Your task to perform on an android device: set the stopwatch Image 0: 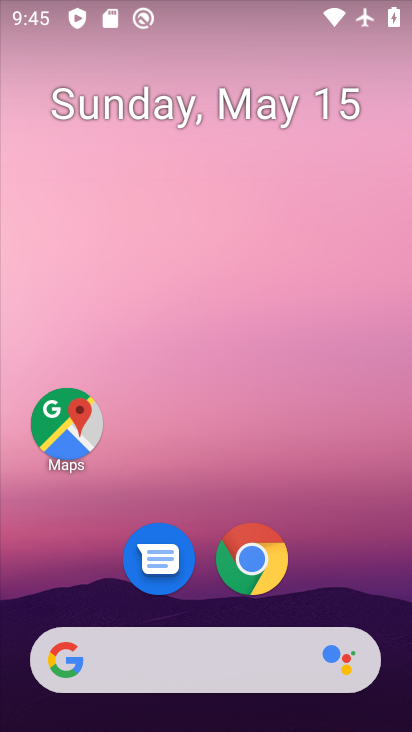
Step 0: drag from (276, 606) to (247, 88)
Your task to perform on an android device: set the stopwatch Image 1: 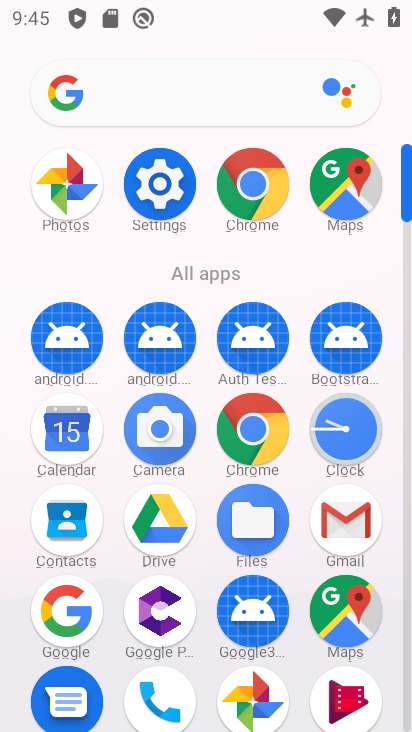
Step 1: click (360, 413)
Your task to perform on an android device: set the stopwatch Image 2: 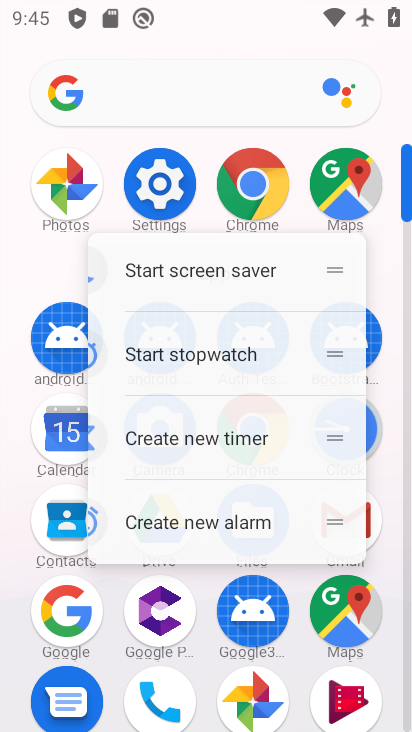
Step 2: click (357, 416)
Your task to perform on an android device: set the stopwatch Image 3: 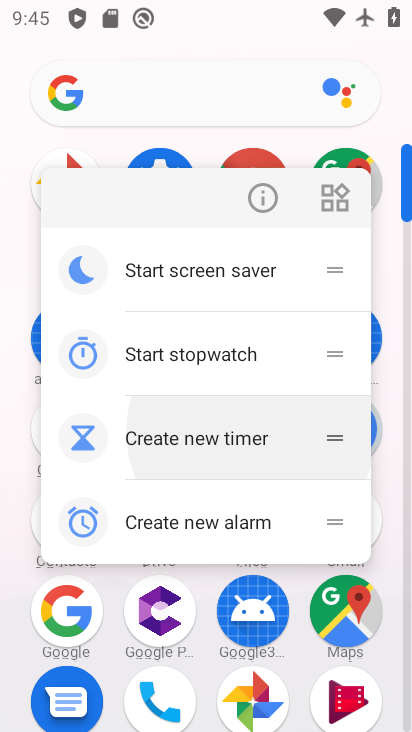
Step 3: click (356, 418)
Your task to perform on an android device: set the stopwatch Image 4: 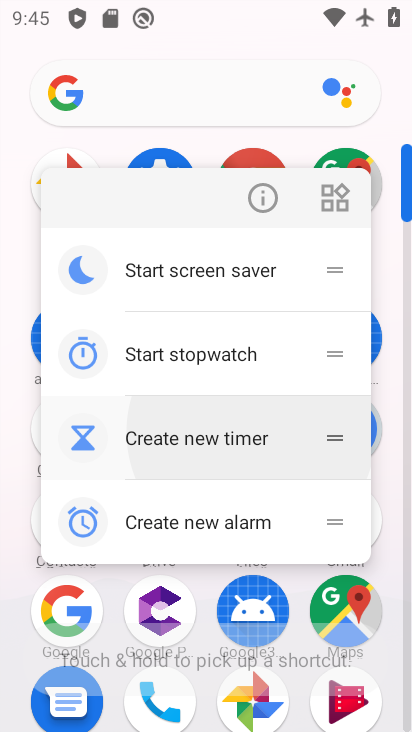
Step 4: click (356, 417)
Your task to perform on an android device: set the stopwatch Image 5: 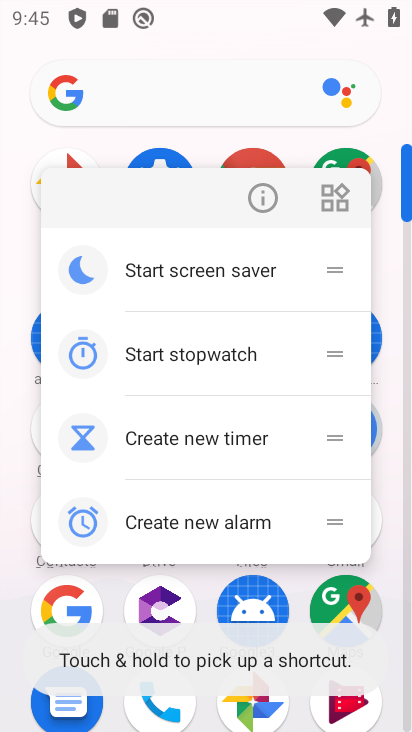
Step 5: click (393, 386)
Your task to perform on an android device: set the stopwatch Image 6: 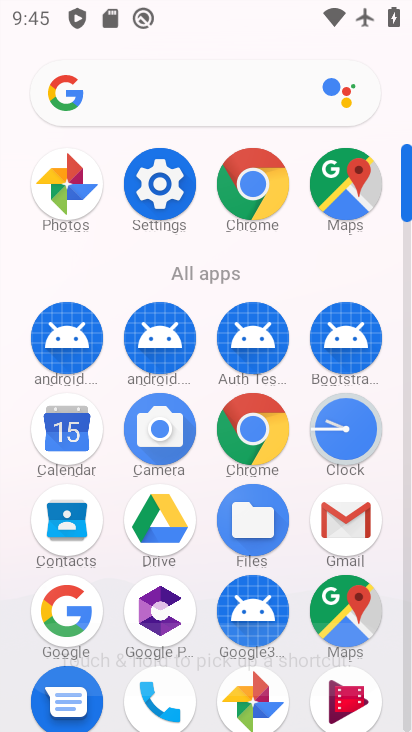
Step 6: click (393, 386)
Your task to perform on an android device: set the stopwatch Image 7: 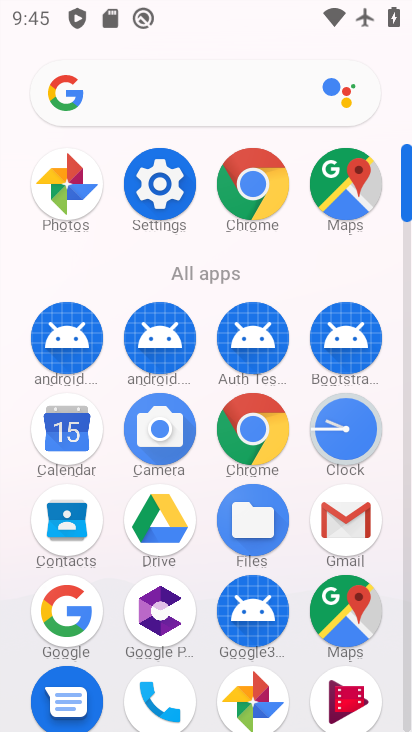
Step 7: click (361, 414)
Your task to perform on an android device: set the stopwatch Image 8: 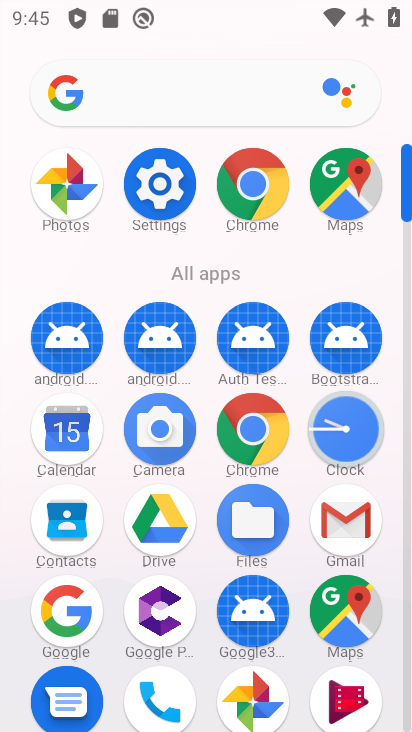
Step 8: click (360, 418)
Your task to perform on an android device: set the stopwatch Image 9: 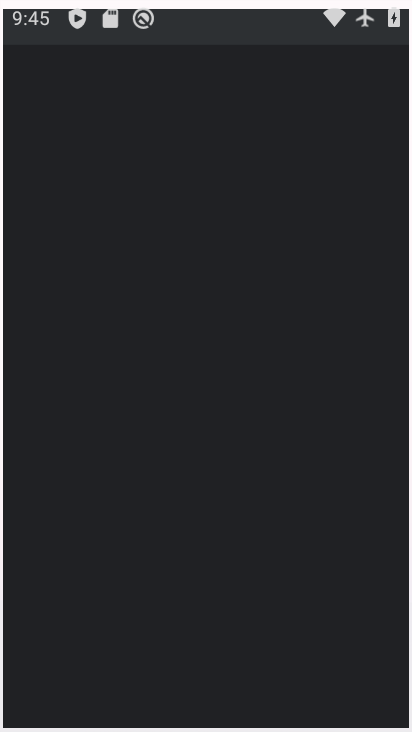
Step 9: click (348, 442)
Your task to perform on an android device: set the stopwatch Image 10: 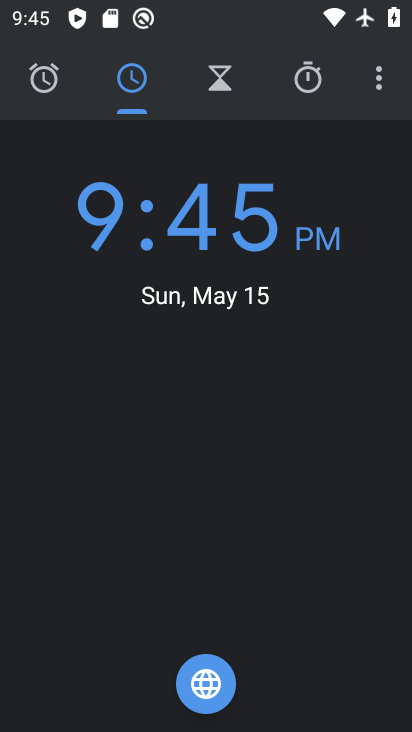
Step 10: click (299, 83)
Your task to perform on an android device: set the stopwatch Image 11: 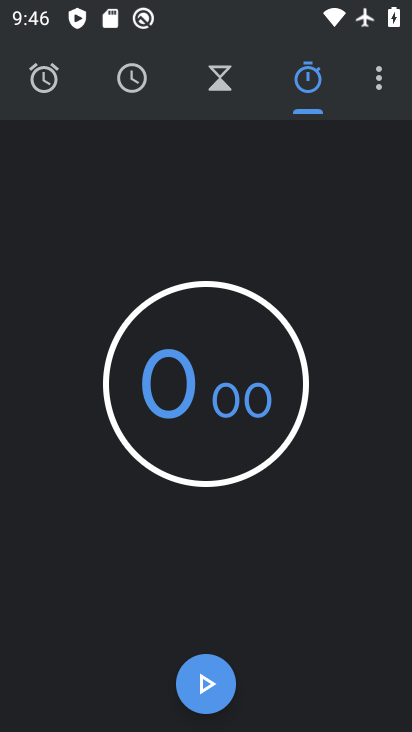
Step 11: click (206, 675)
Your task to perform on an android device: set the stopwatch Image 12: 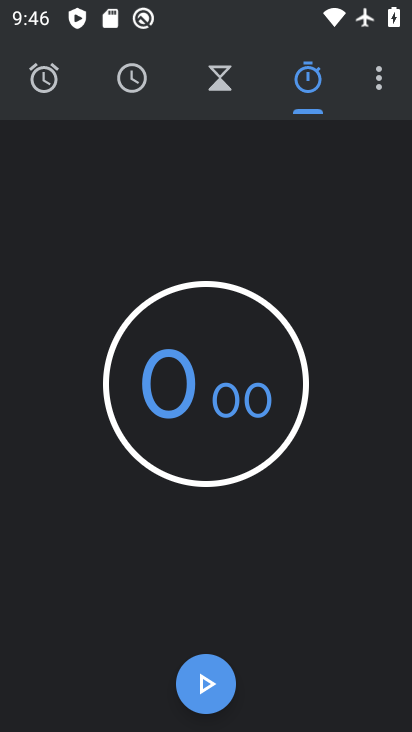
Step 12: click (206, 675)
Your task to perform on an android device: set the stopwatch Image 13: 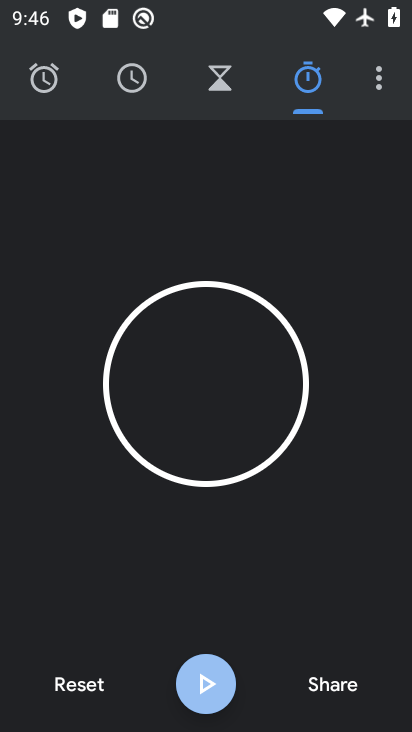
Step 13: click (206, 675)
Your task to perform on an android device: set the stopwatch Image 14: 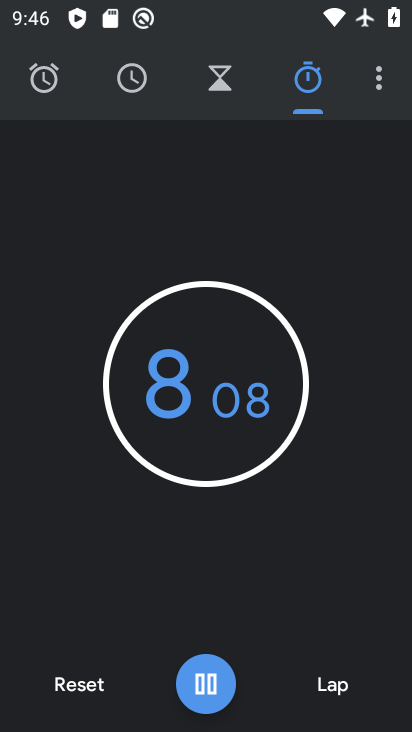
Step 14: click (204, 674)
Your task to perform on an android device: set the stopwatch Image 15: 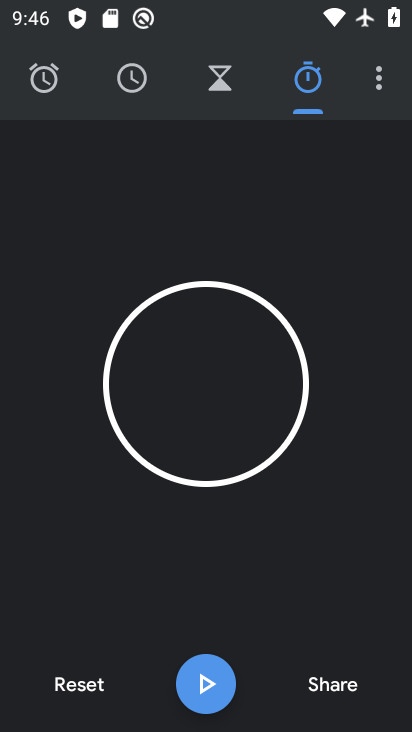
Step 15: click (209, 682)
Your task to perform on an android device: set the stopwatch Image 16: 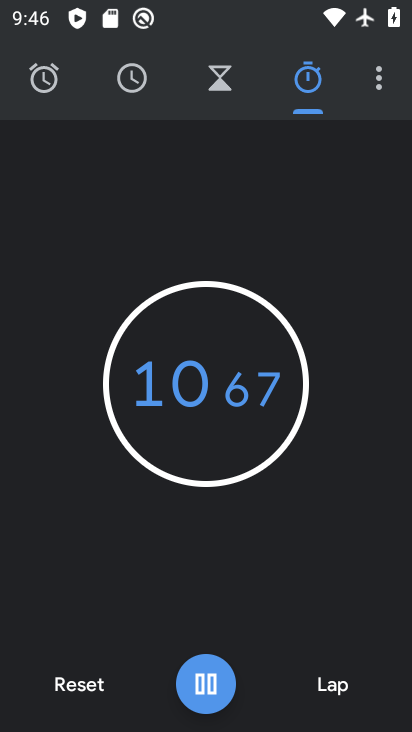
Step 16: task complete